Your task to perform on an android device: Find coffee shops on Maps Image 0: 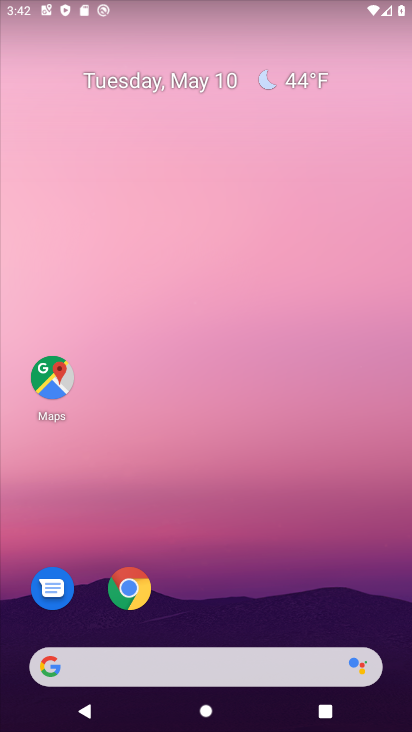
Step 0: click (50, 376)
Your task to perform on an android device: Find coffee shops on Maps Image 1: 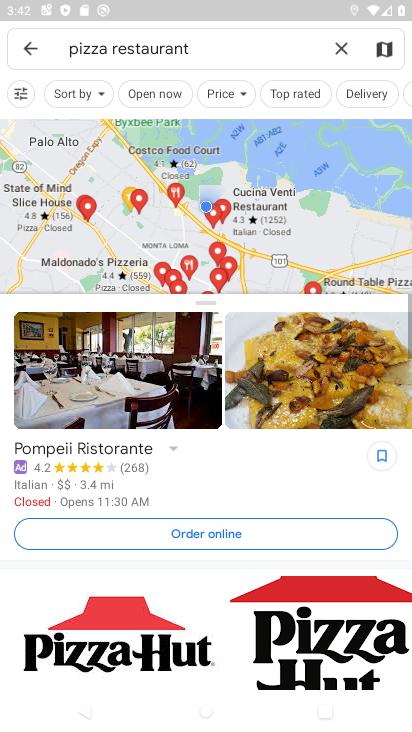
Step 1: click (268, 55)
Your task to perform on an android device: Find coffee shops on Maps Image 2: 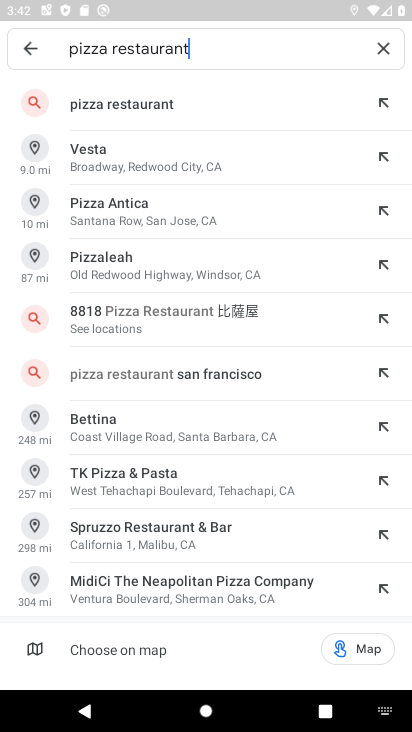
Step 2: click (383, 46)
Your task to perform on an android device: Find coffee shops on Maps Image 3: 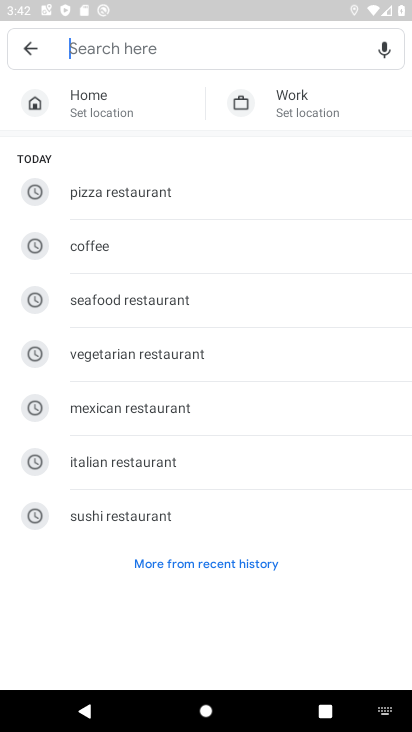
Step 3: type "coffee shops"
Your task to perform on an android device: Find coffee shops on Maps Image 4: 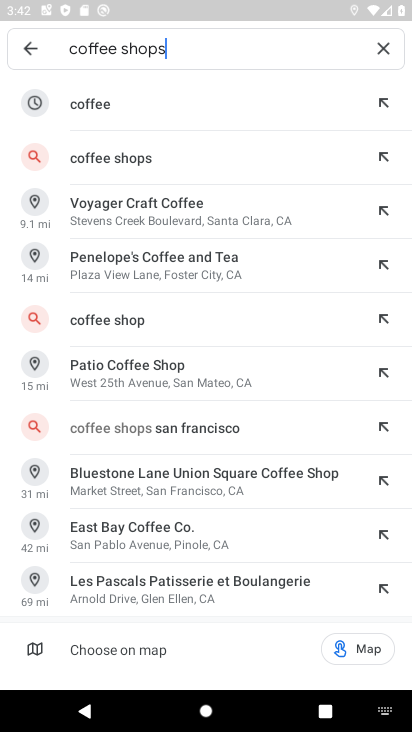
Step 4: click (164, 160)
Your task to perform on an android device: Find coffee shops on Maps Image 5: 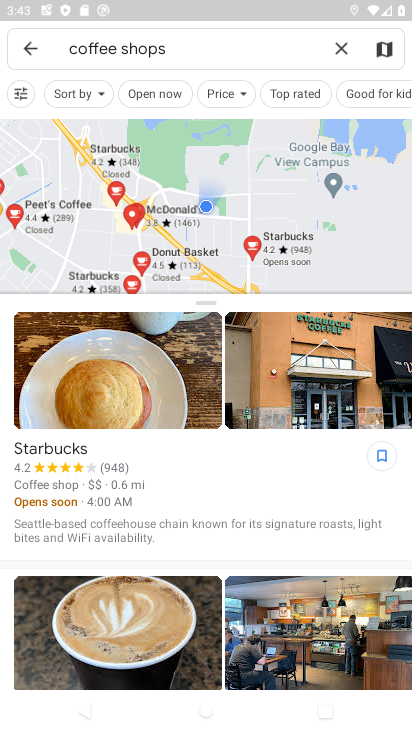
Step 5: task complete